Your task to perform on an android device: Go to settings Image 0: 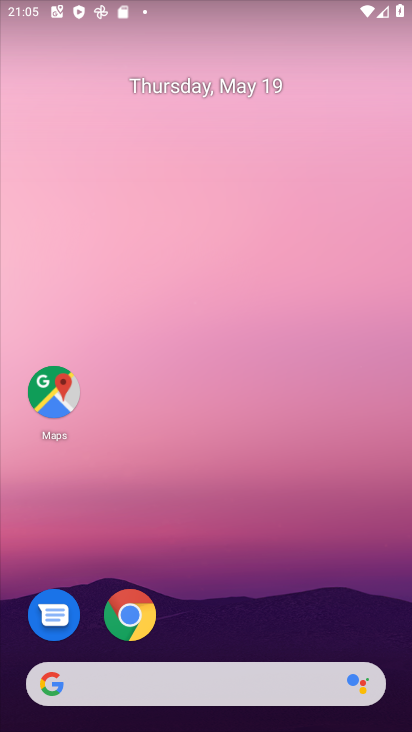
Step 0: drag from (241, 436) to (241, 39)
Your task to perform on an android device: Go to settings Image 1: 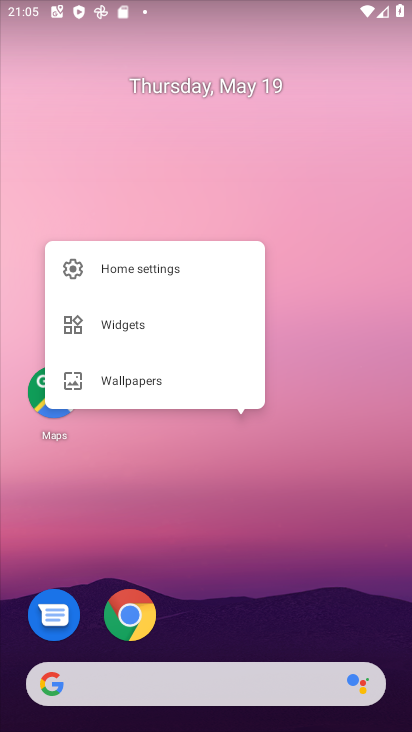
Step 1: drag from (199, 615) to (283, 119)
Your task to perform on an android device: Go to settings Image 2: 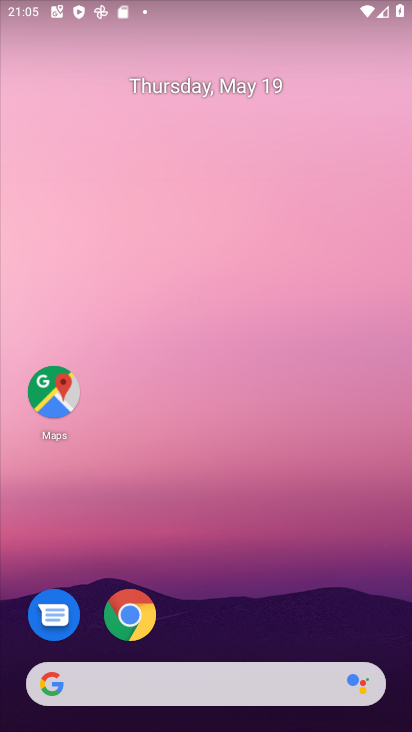
Step 2: drag from (211, 611) to (199, 0)
Your task to perform on an android device: Go to settings Image 3: 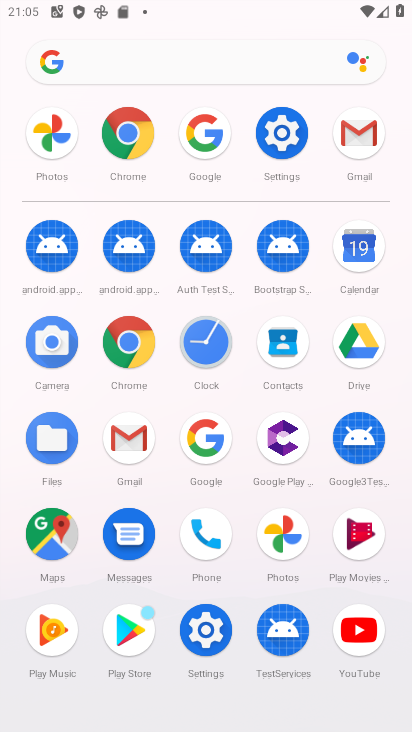
Step 3: click (281, 130)
Your task to perform on an android device: Go to settings Image 4: 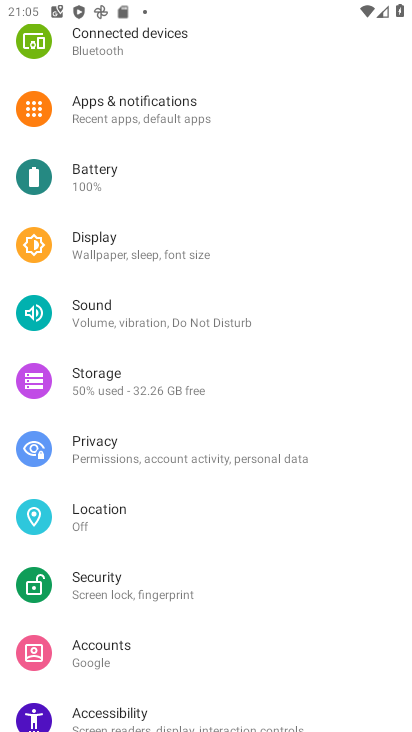
Step 4: task complete